Your task to perform on an android device: turn off notifications in google photos Image 0: 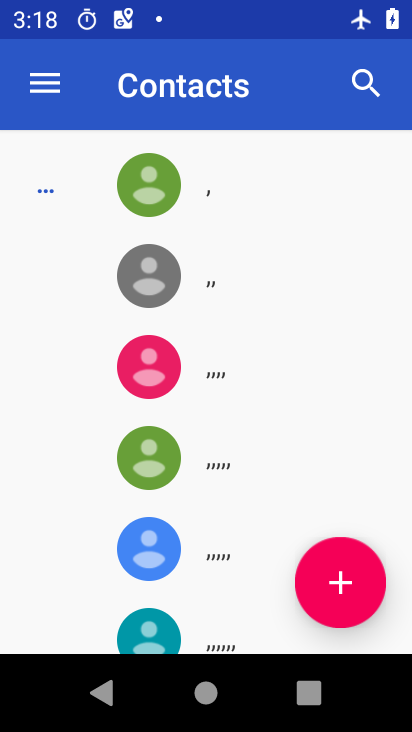
Step 0: press home button
Your task to perform on an android device: turn off notifications in google photos Image 1: 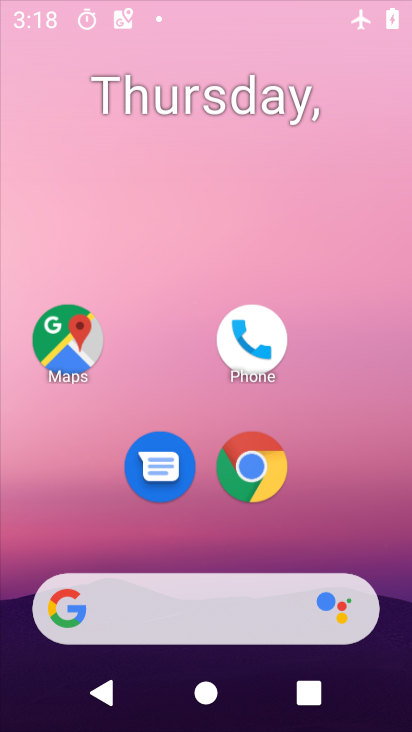
Step 1: drag from (209, 563) to (249, 60)
Your task to perform on an android device: turn off notifications in google photos Image 2: 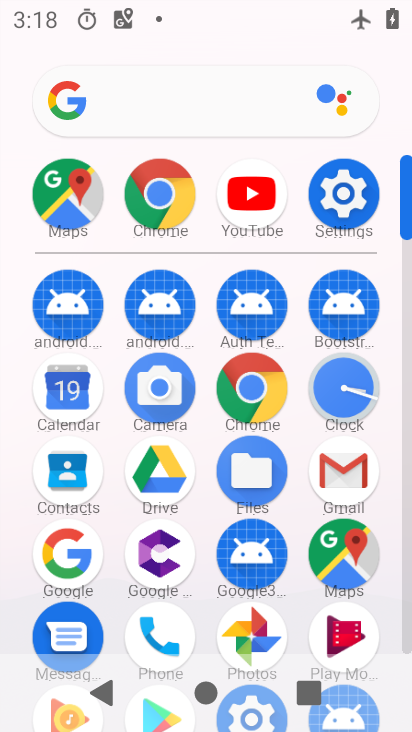
Step 2: click (241, 617)
Your task to perform on an android device: turn off notifications in google photos Image 3: 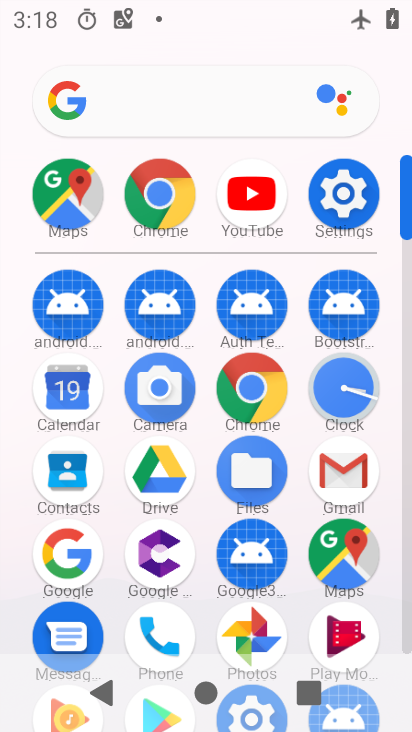
Step 3: click (241, 617)
Your task to perform on an android device: turn off notifications in google photos Image 4: 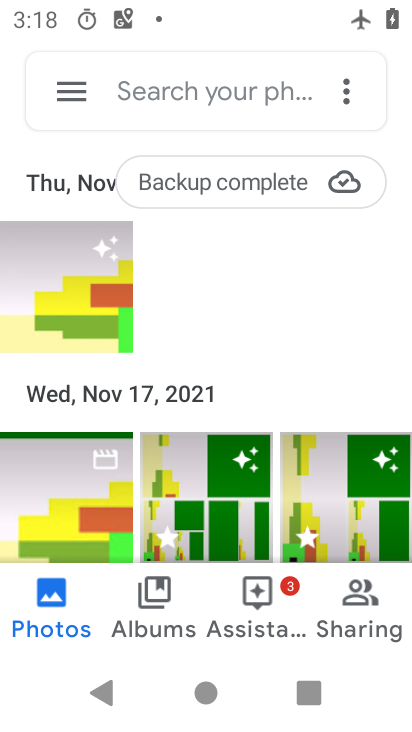
Step 4: click (64, 98)
Your task to perform on an android device: turn off notifications in google photos Image 5: 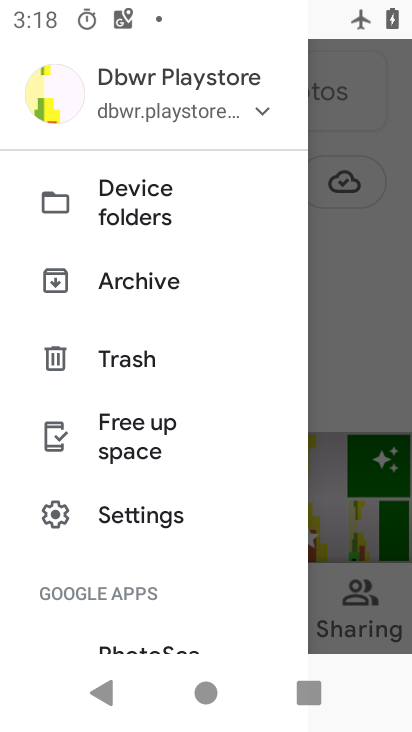
Step 5: drag from (144, 609) to (162, 150)
Your task to perform on an android device: turn off notifications in google photos Image 6: 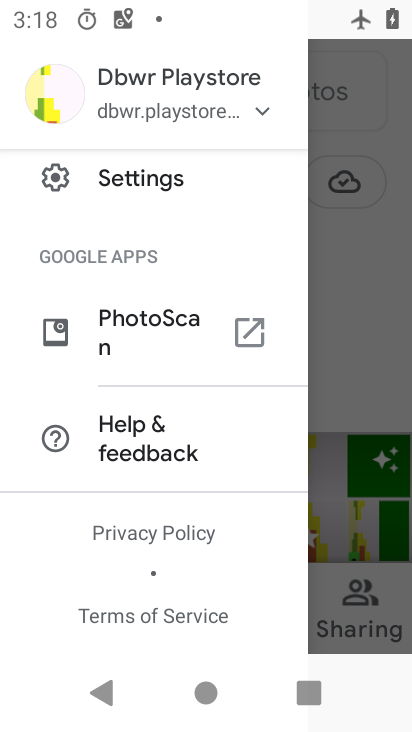
Step 6: click (165, 179)
Your task to perform on an android device: turn off notifications in google photos Image 7: 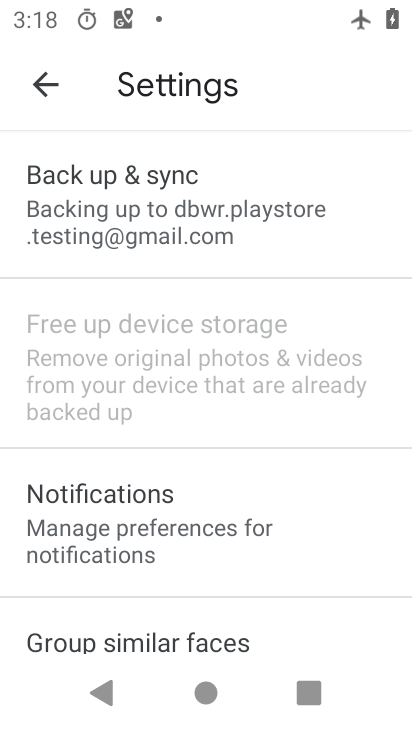
Step 7: click (178, 499)
Your task to perform on an android device: turn off notifications in google photos Image 8: 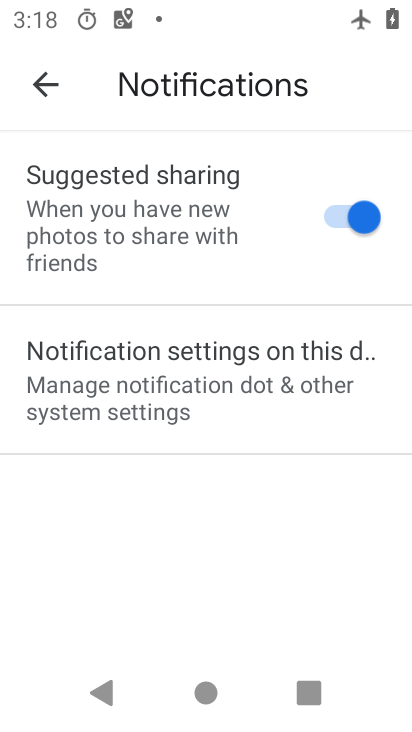
Step 8: click (173, 366)
Your task to perform on an android device: turn off notifications in google photos Image 9: 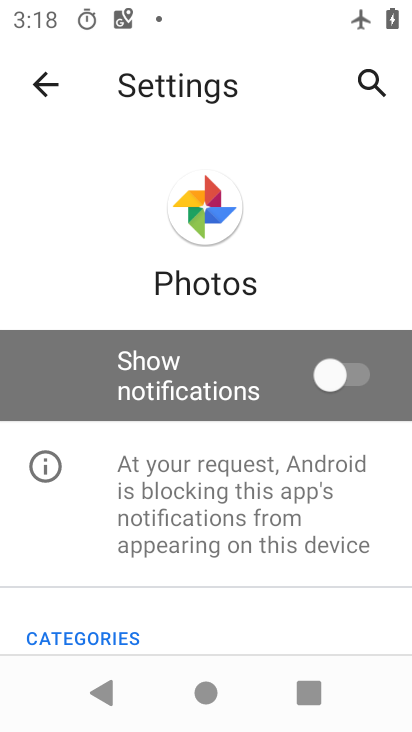
Step 9: task complete